Your task to perform on an android device: turn on priority inbox in the gmail app Image 0: 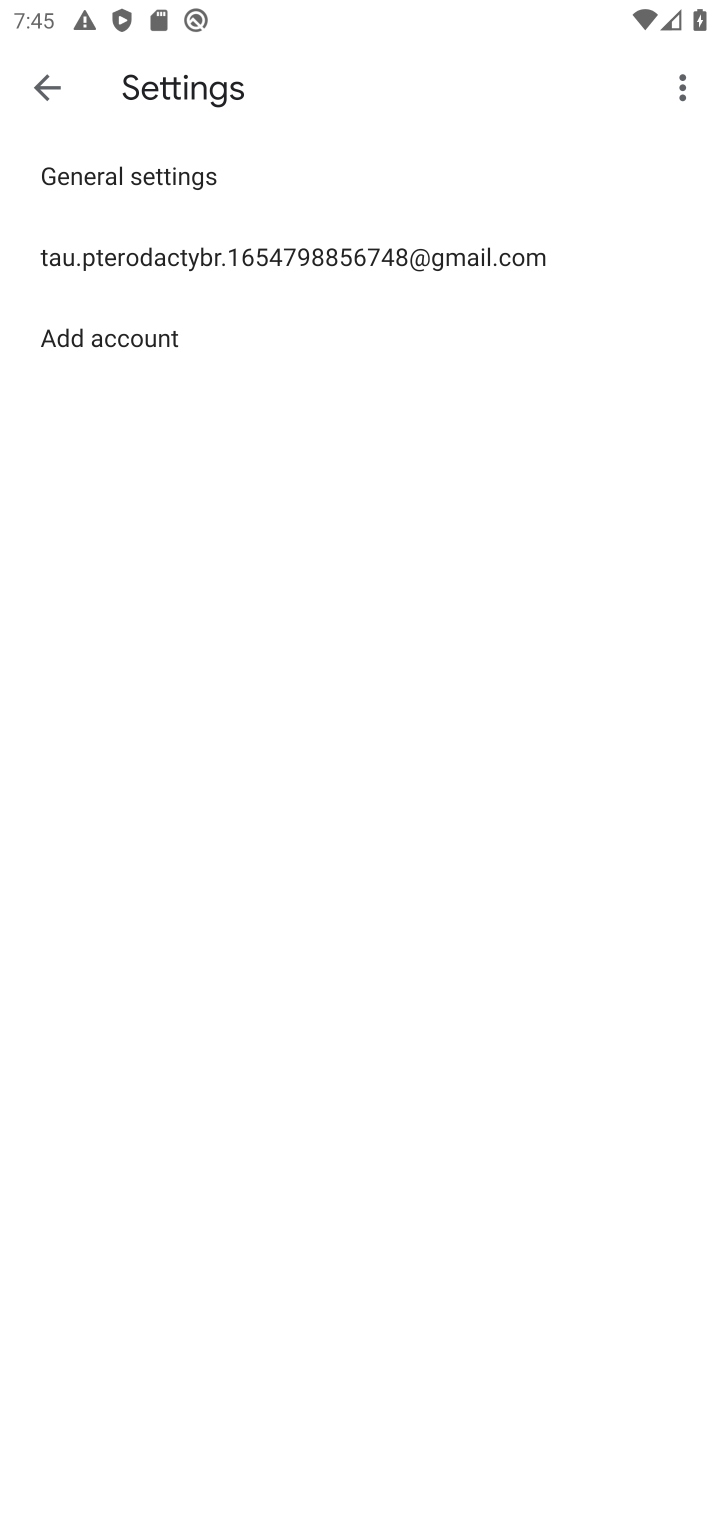
Step 0: press home button
Your task to perform on an android device: turn on priority inbox in the gmail app Image 1: 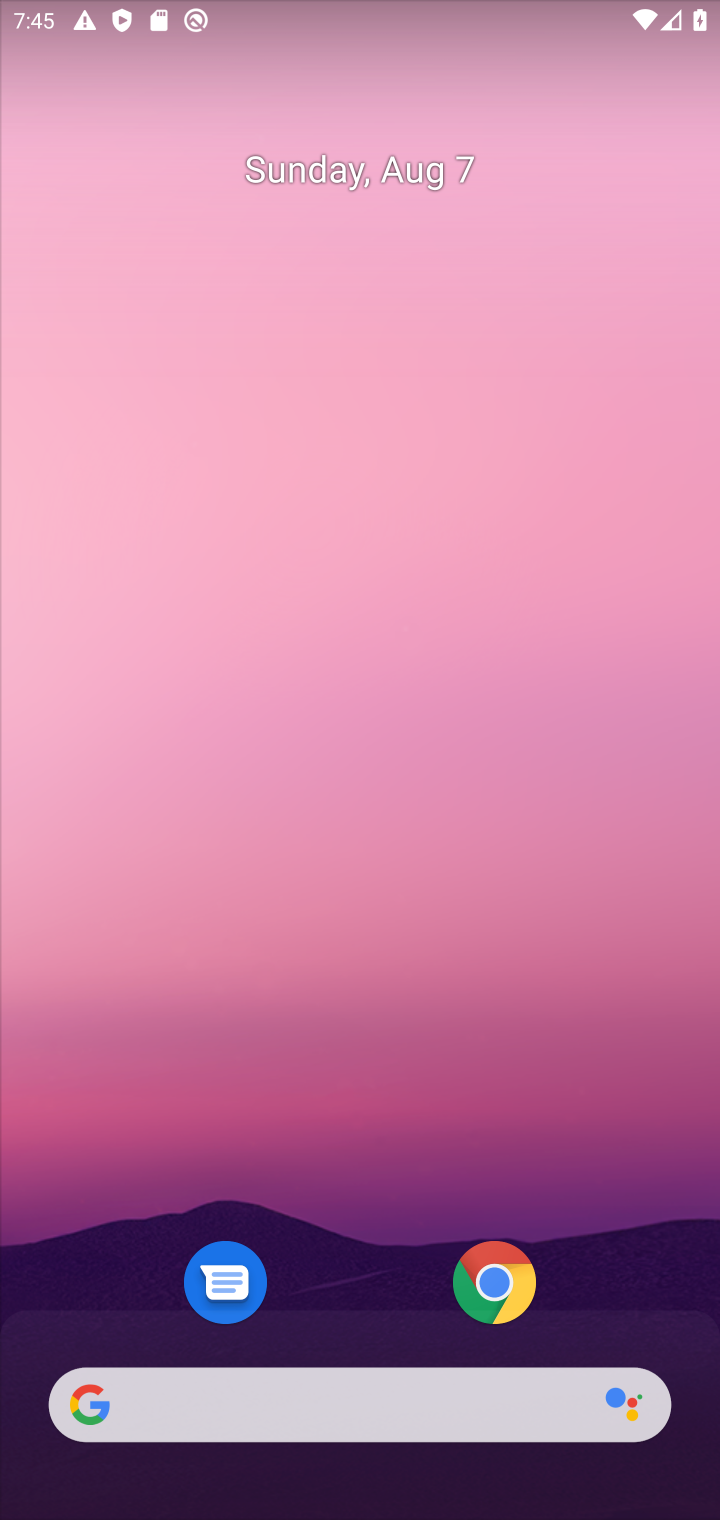
Step 1: drag from (438, 816) to (506, 471)
Your task to perform on an android device: turn on priority inbox in the gmail app Image 2: 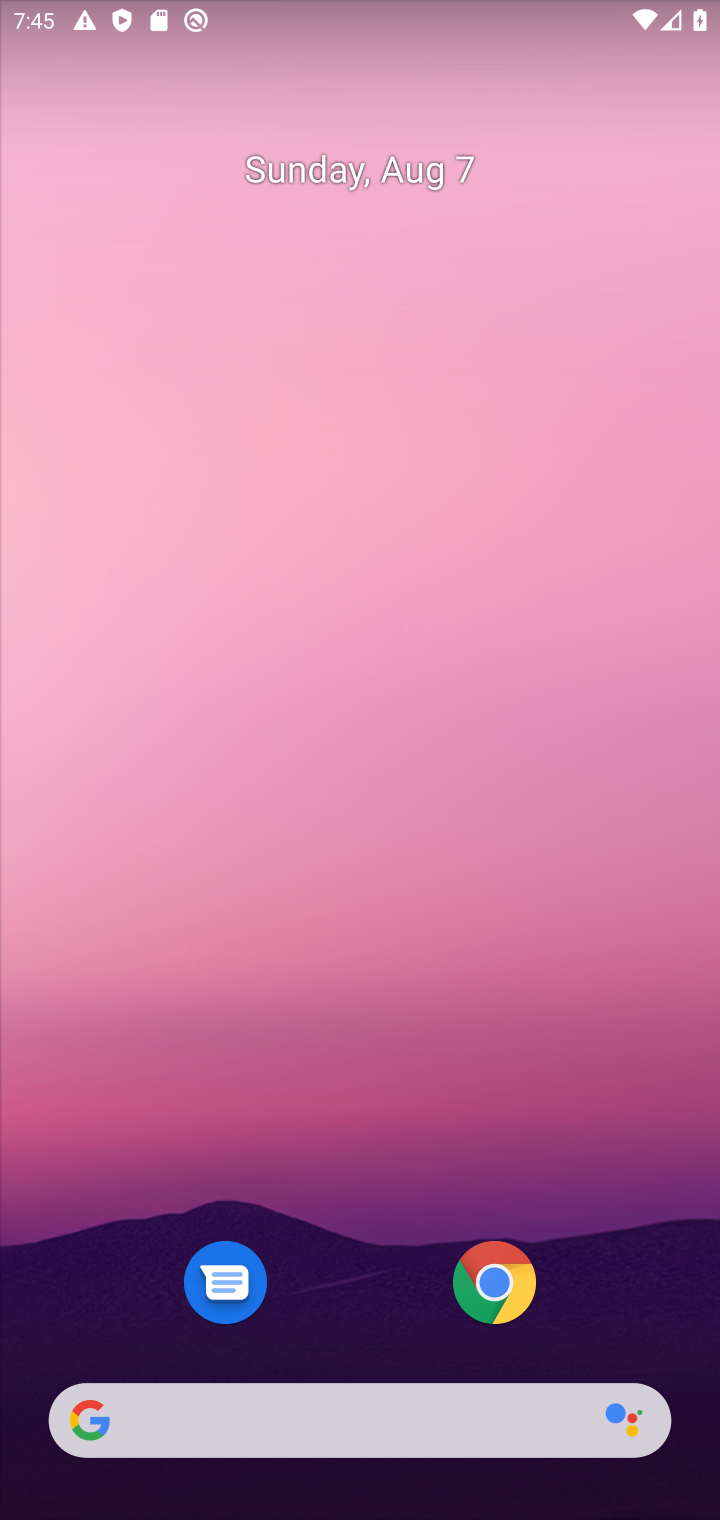
Step 2: drag from (344, 1281) to (590, 321)
Your task to perform on an android device: turn on priority inbox in the gmail app Image 3: 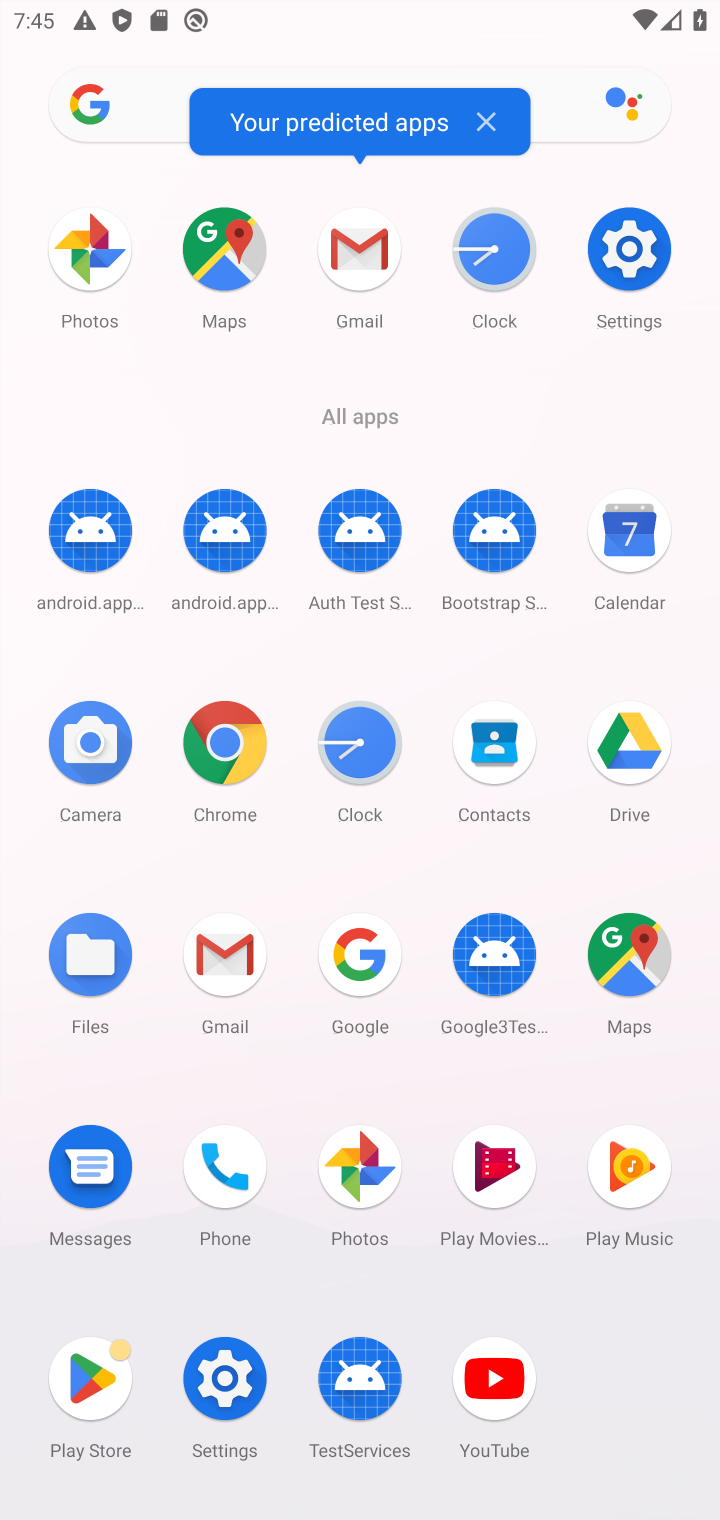
Step 3: click (369, 271)
Your task to perform on an android device: turn on priority inbox in the gmail app Image 4: 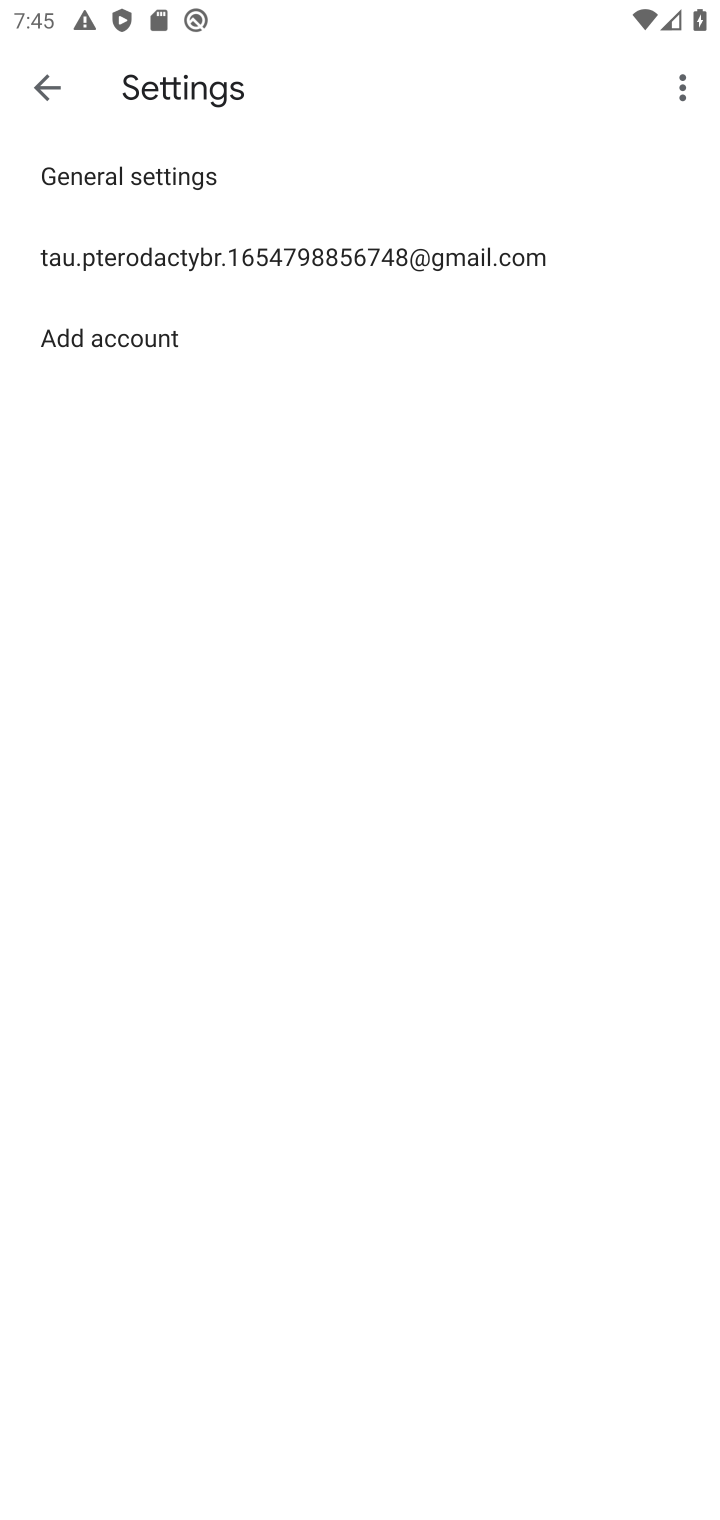
Step 4: click (98, 249)
Your task to perform on an android device: turn on priority inbox in the gmail app Image 5: 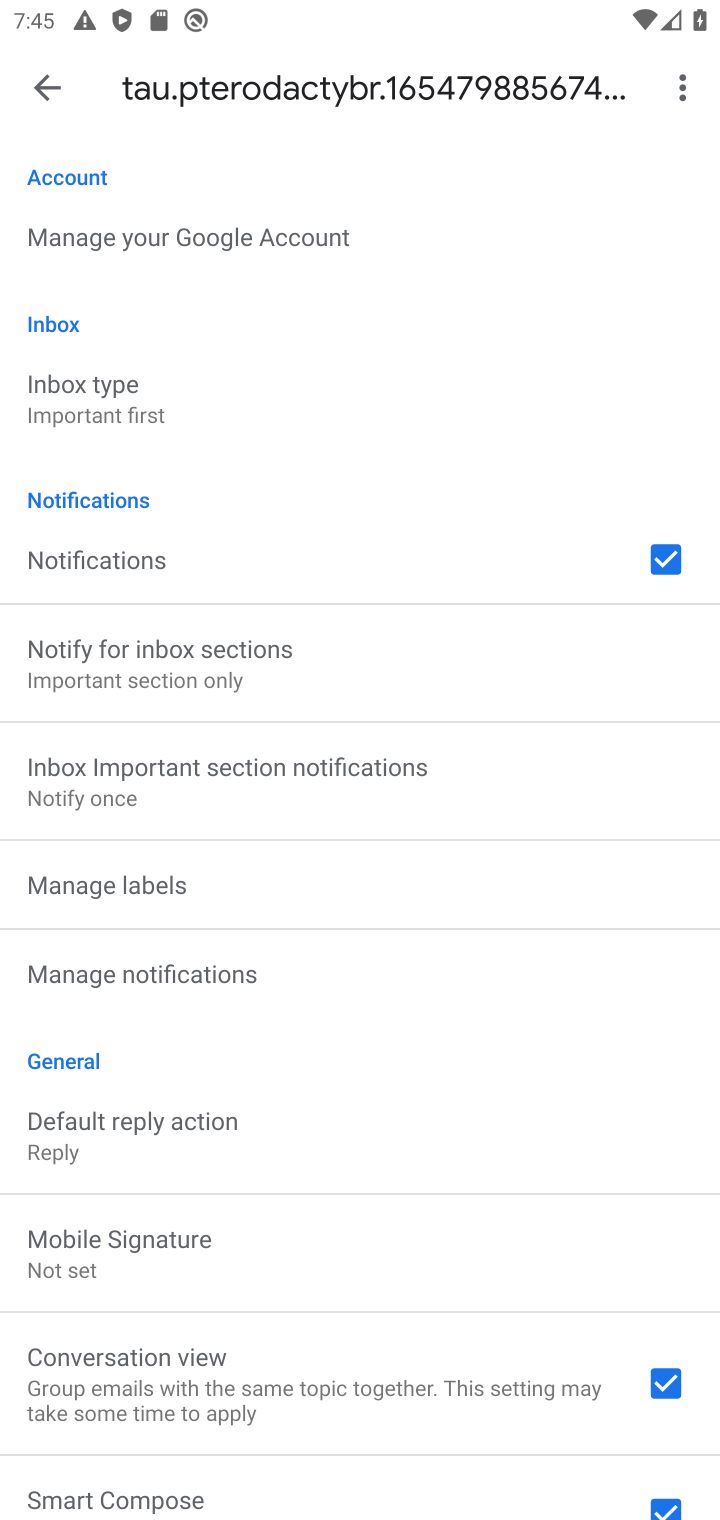
Step 5: click (152, 401)
Your task to perform on an android device: turn on priority inbox in the gmail app Image 6: 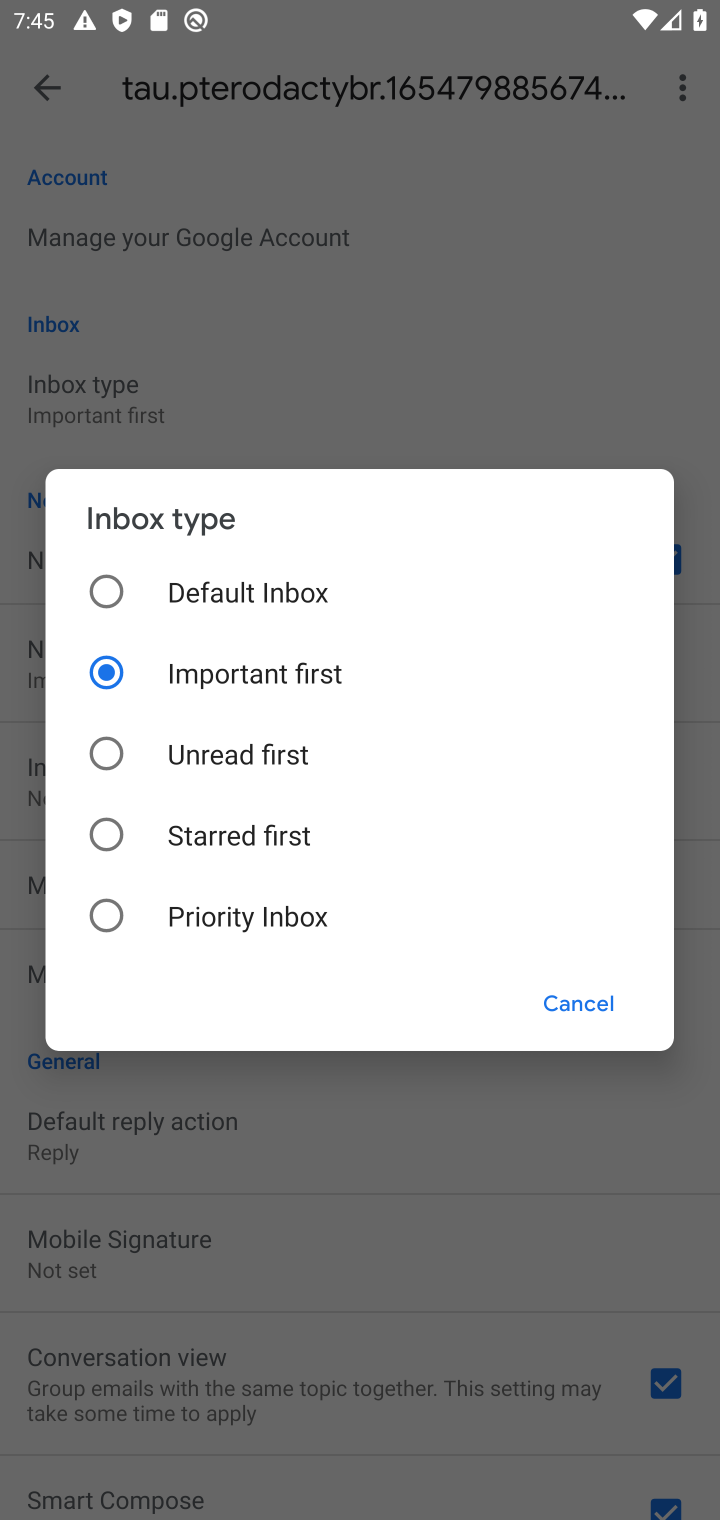
Step 6: click (102, 913)
Your task to perform on an android device: turn on priority inbox in the gmail app Image 7: 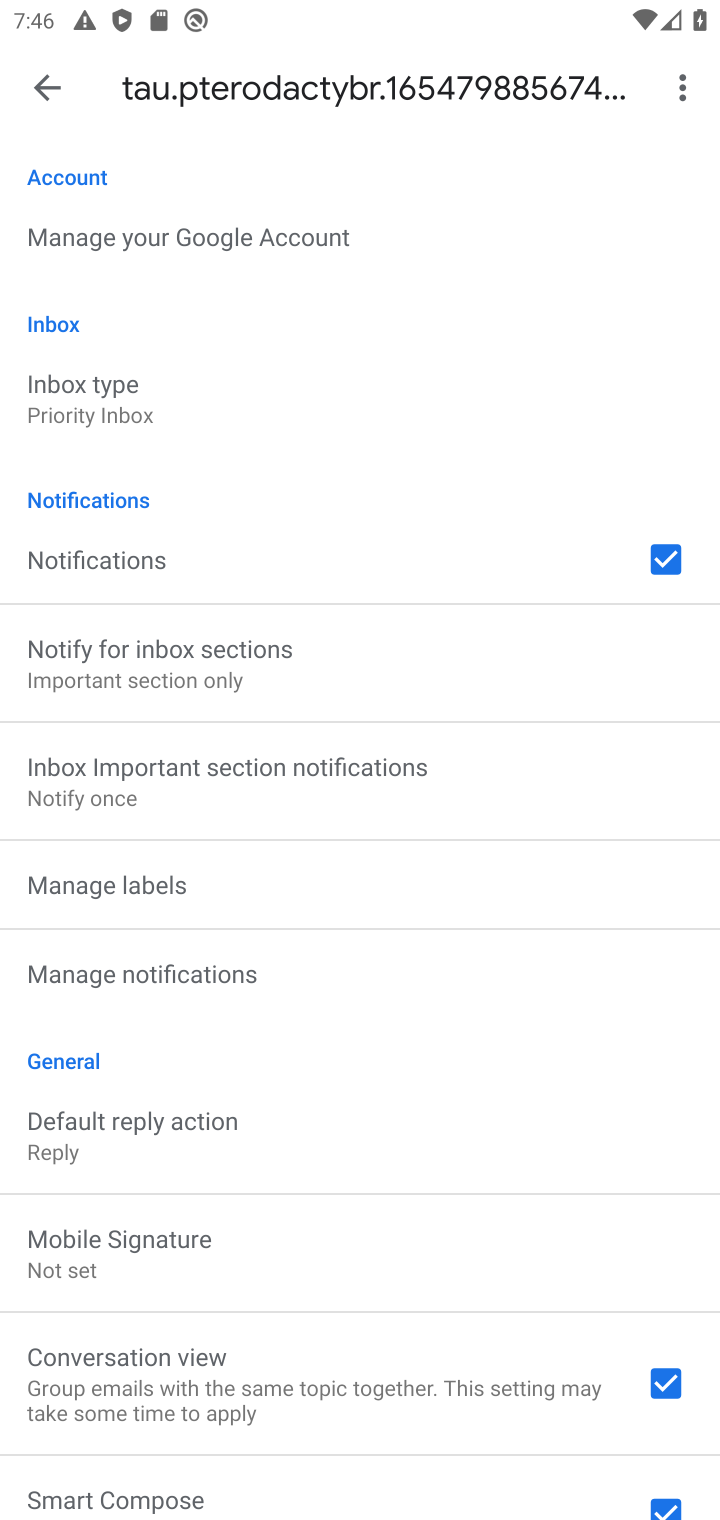
Step 7: task complete